Your task to perform on an android device: toggle wifi Image 0: 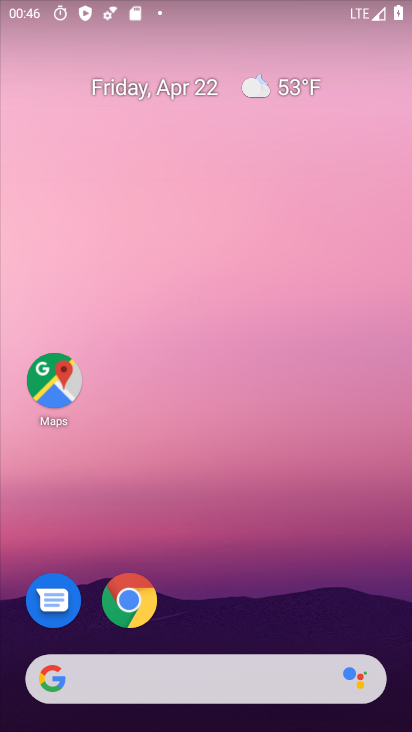
Step 0: drag from (205, 618) to (267, 15)
Your task to perform on an android device: toggle wifi Image 1: 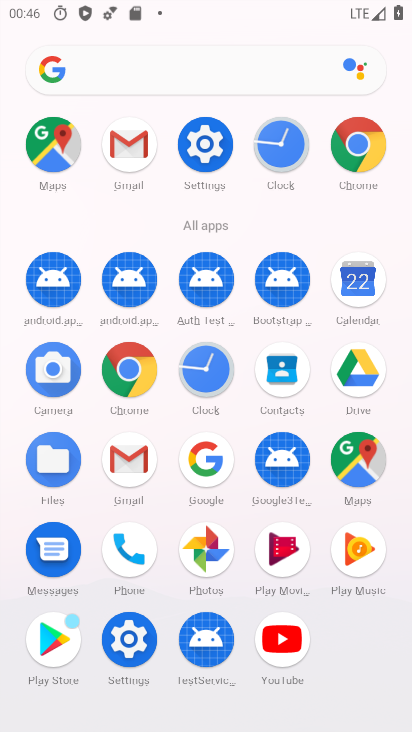
Step 1: click (212, 149)
Your task to perform on an android device: toggle wifi Image 2: 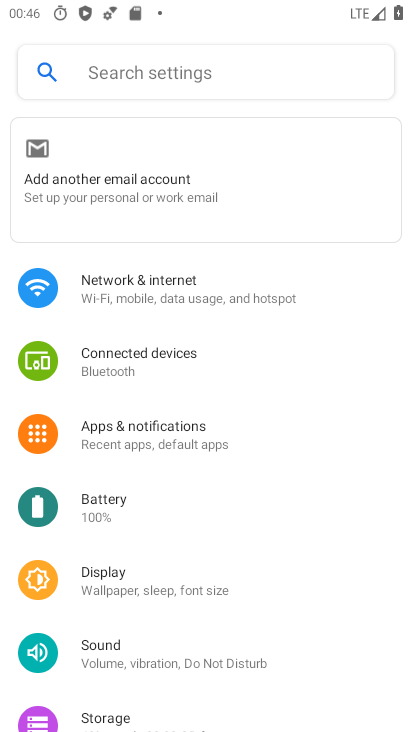
Step 2: click (207, 283)
Your task to perform on an android device: toggle wifi Image 3: 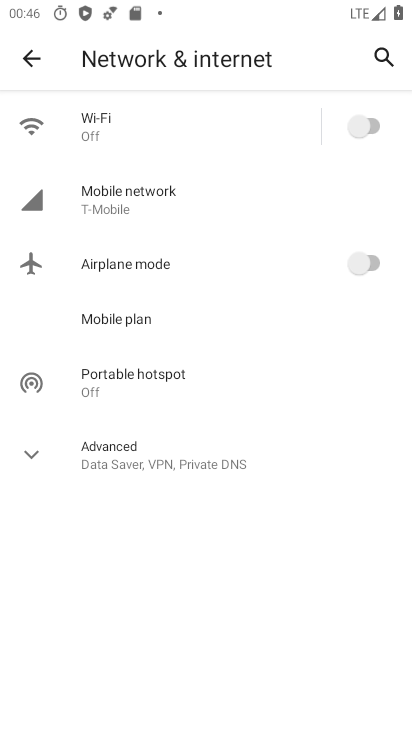
Step 3: click (369, 129)
Your task to perform on an android device: toggle wifi Image 4: 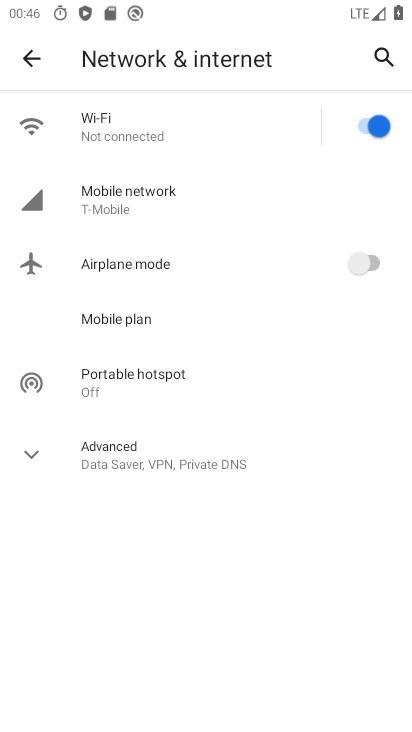
Step 4: task complete